Your task to perform on an android device: turn smart compose on in the gmail app Image 0: 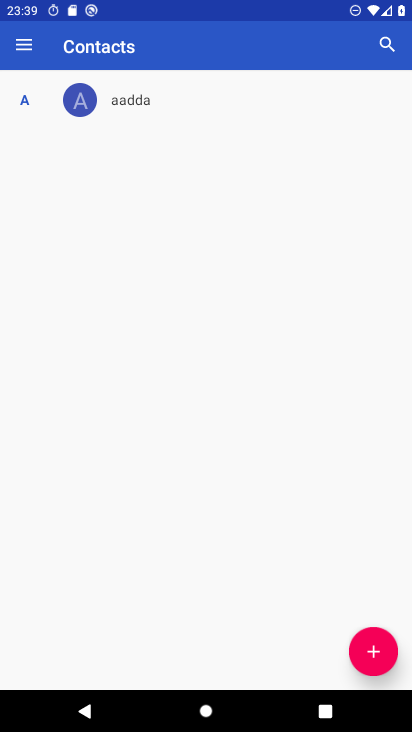
Step 0: press home button
Your task to perform on an android device: turn smart compose on in the gmail app Image 1: 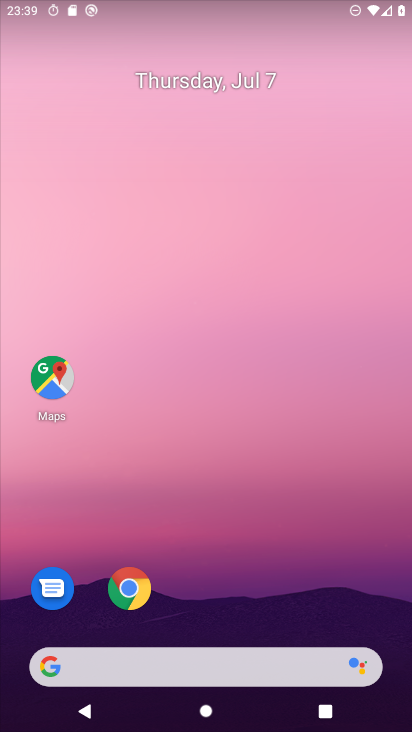
Step 1: drag from (296, 488) to (253, 106)
Your task to perform on an android device: turn smart compose on in the gmail app Image 2: 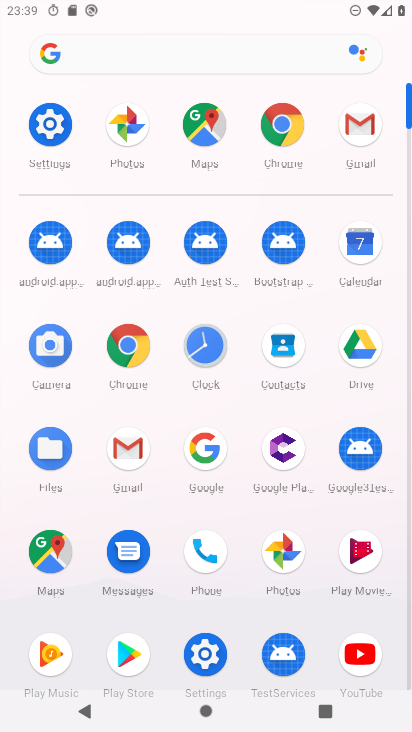
Step 2: click (352, 129)
Your task to perform on an android device: turn smart compose on in the gmail app Image 3: 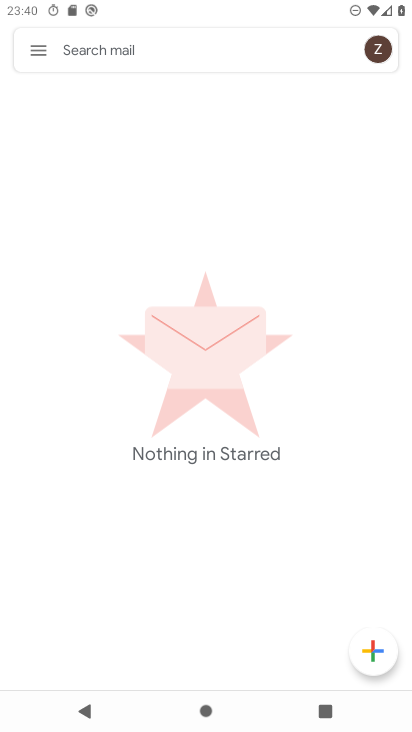
Step 3: click (49, 42)
Your task to perform on an android device: turn smart compose on in the gmail app Image 4: 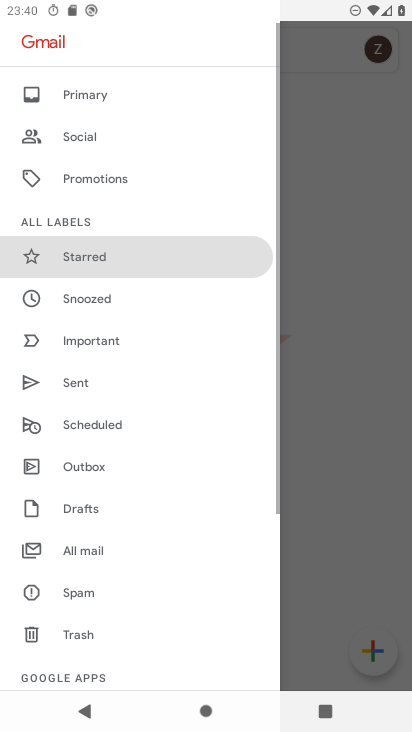
Step 4: drag from (161, 622) to (171, 77)
Your task to perform on an android device: turn smart compose on in the gmail app Image 5: 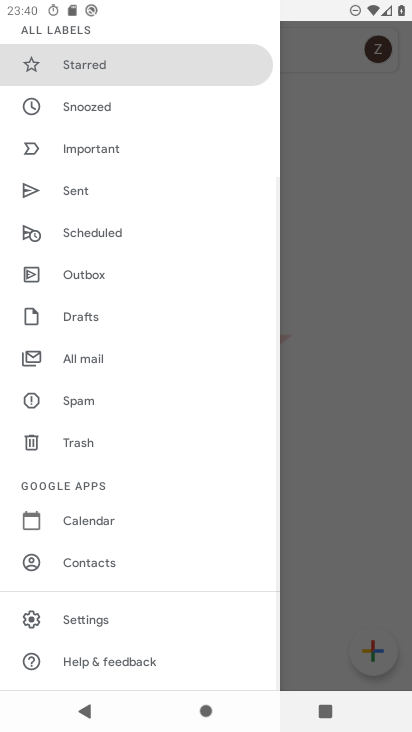
Step 5: click (99, 622)
Your task to perform on an android device: turn smart compose on in the gmail app Image 6: 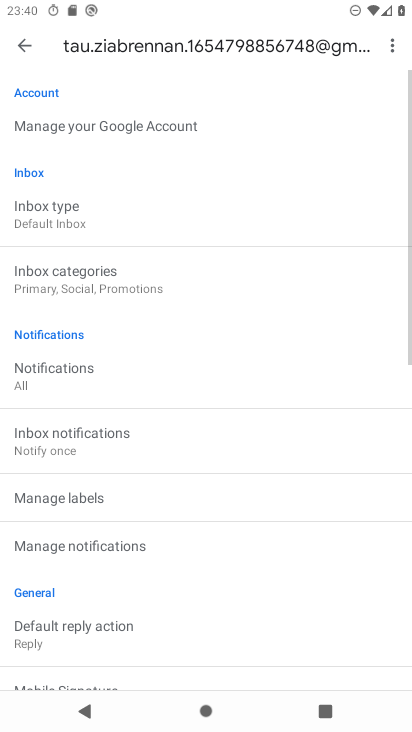
Step 6: task complete